Your task to perform on an android device: read, delete, or share a saved page in the chrome app Image 0: 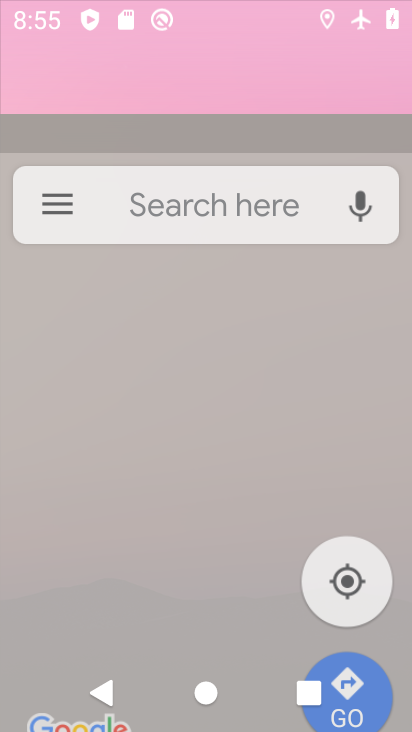
Step 0: click (255, 464)
Your task to perform on an android device: read, delete, or share a saved page in the chrome app Image 1: 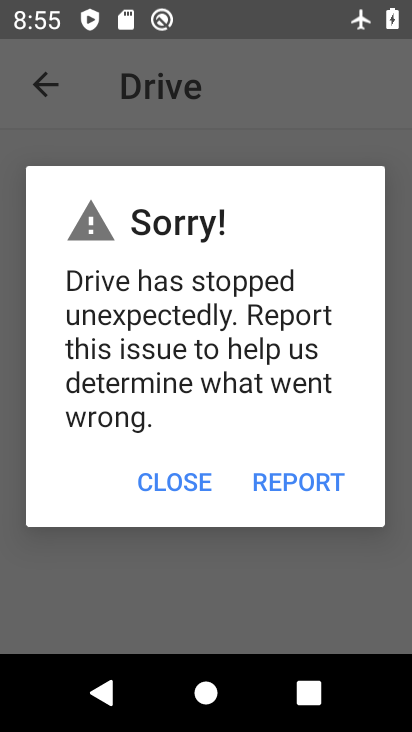
Step 1: press home button
Your task to perform on an android device: read, delete, or share a saved page in the chrome app Image 2: 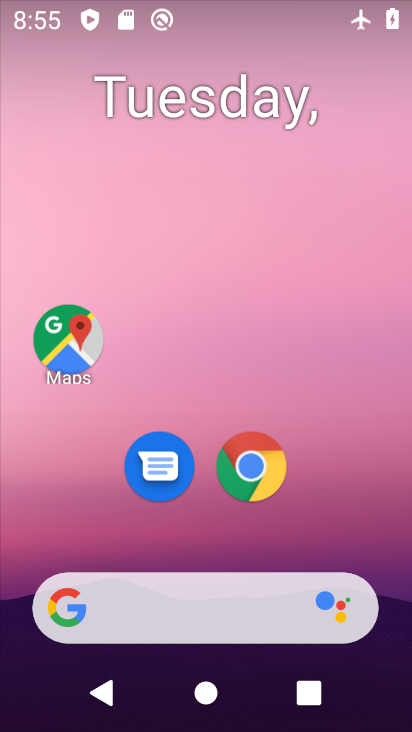
Step 2: click (259, 467)
Your task to perform on an android device: read, delete, or share a saved page in the chrome app Image 3: 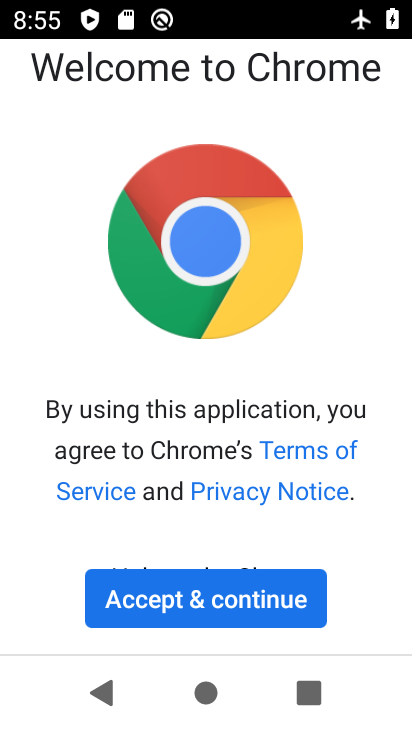
Step 3: click (188, 594)
Your task to perform on an android device: read, delete, or share a saved page in the chrome app Image 4: 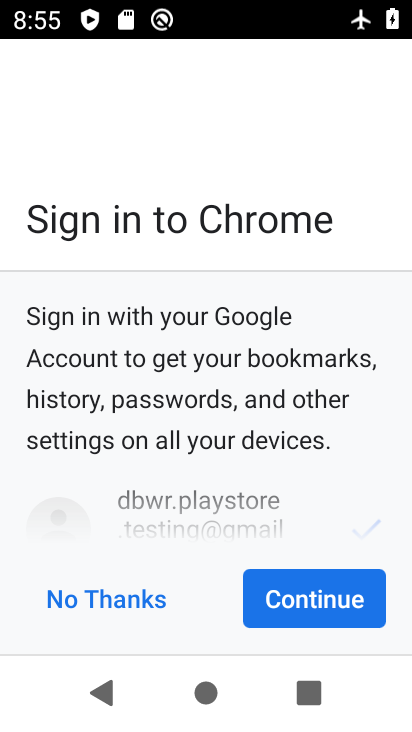
Step 4: click (282, 594)
Your task to perform on an android device: read, delete, or share a saved page in the chrome app Image 5: 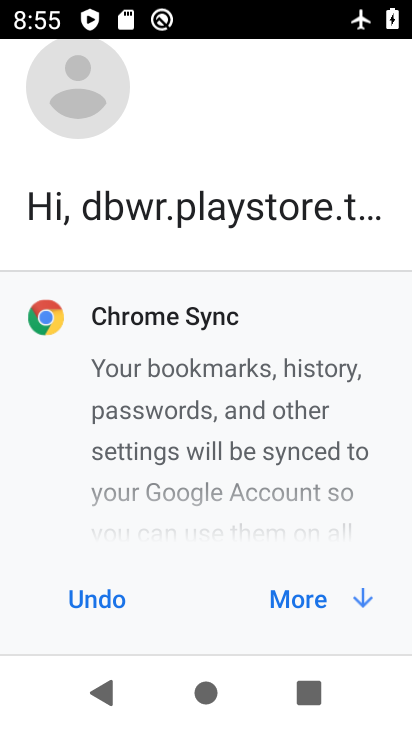
Step 5: click (283, 588)
Your task to perform on an android device: read, delete, or share a saved page in the chrome app Image 6: 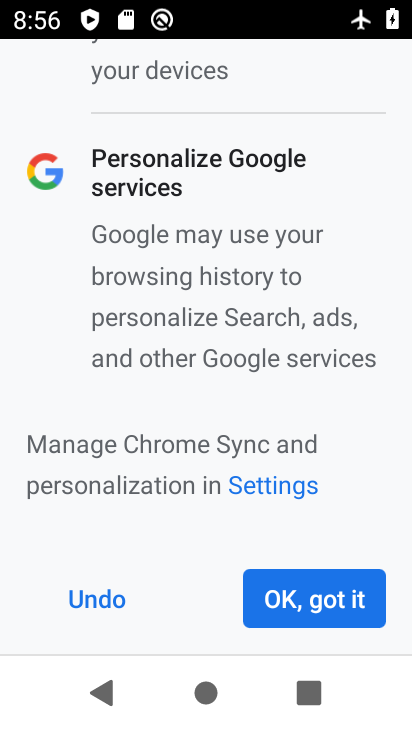
Step 6: click (279, 572)
Your task to perform on an android device: read, delete, or share a saved page in the chrome app Image 7: 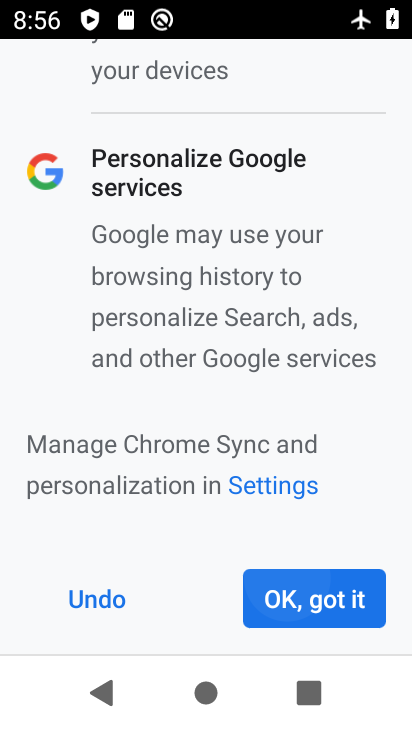
Step 7: click (276, 585)
Your task to perform on an android device: read, delete, or share a saved page in the chrome app Image 8: 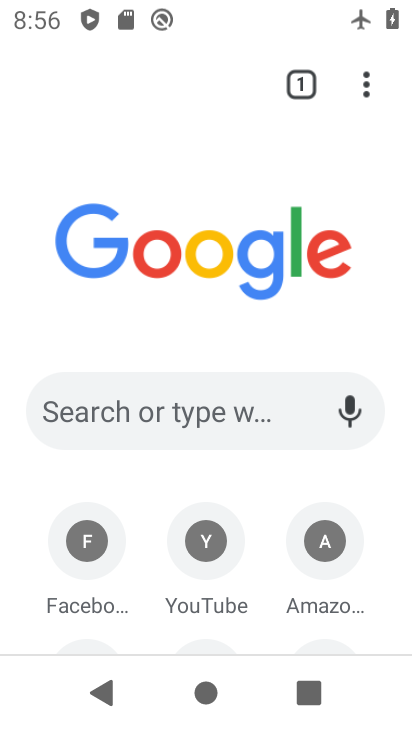
Step 8: task complete